Your task to perform on an android device: open app "Upside-Cash back on gas & food" (install if not already installed) Image 0: 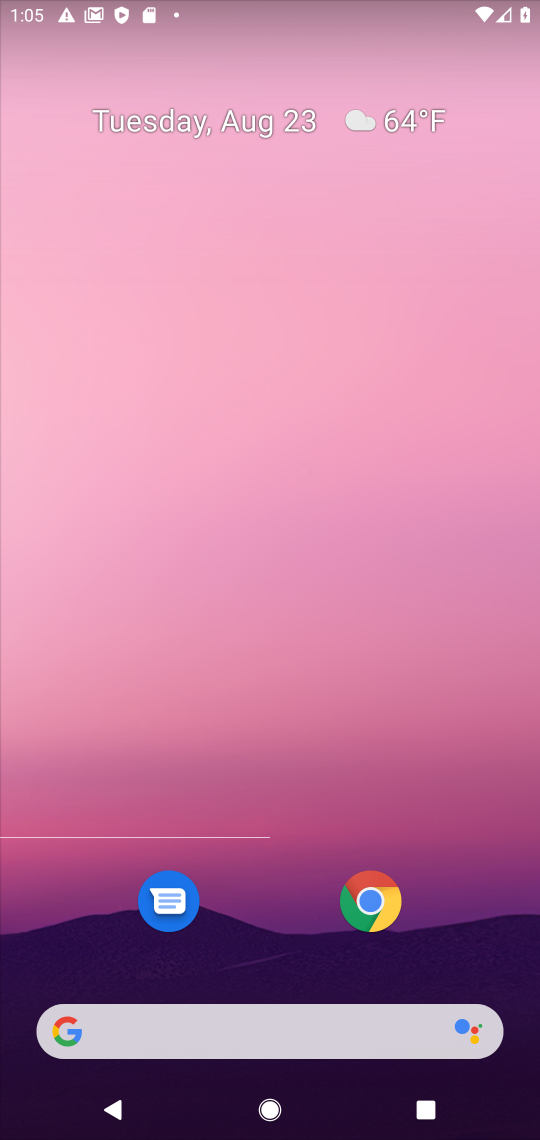
Step 0: press home button
Your task to perform on an android device: open app "Upside-Cash back on gas & food" (install if not already installed) Image 1: 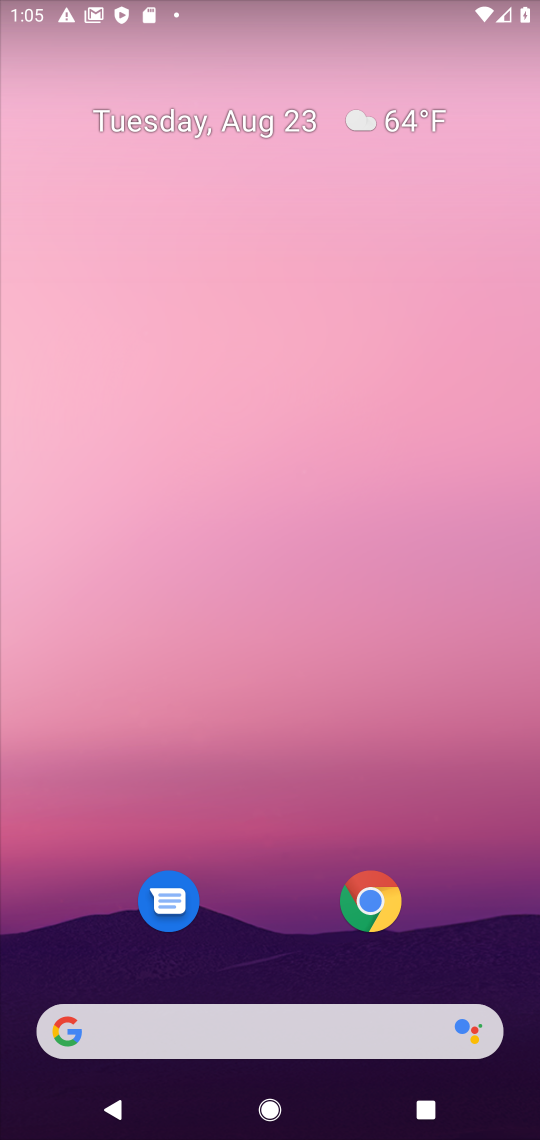
Step 1: drag from (268, 948) to (342, 0)
Your task to perform on an android device: open app "Upside-Cash back on gas & food" (install if not already installed) Image 2: 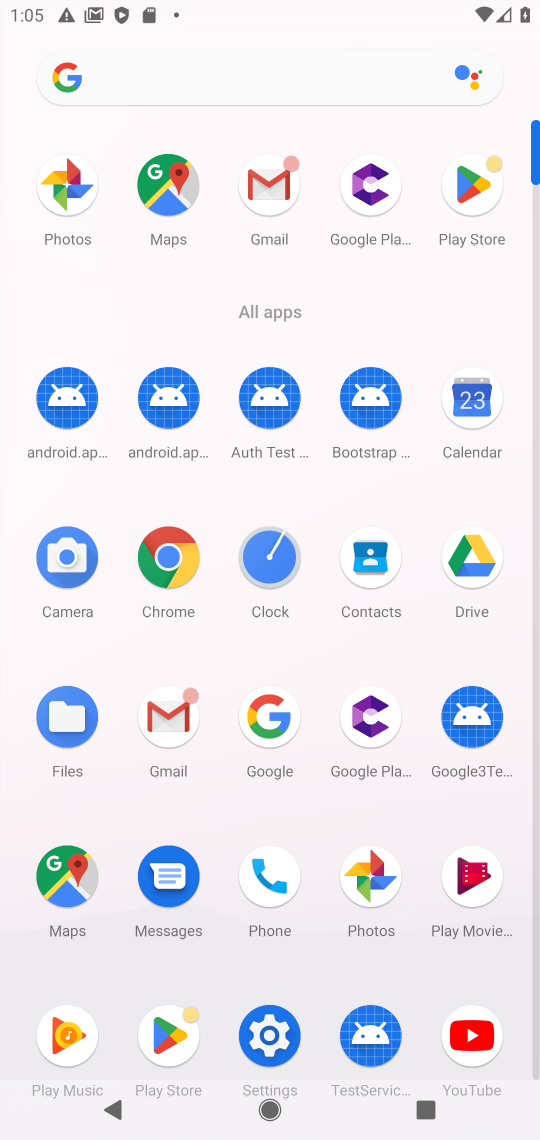
Step 2: click (468, 185)
Your task to perform on an android device: open app "Upside-Cash back on gas & food" (install if not already installed) Image 3: 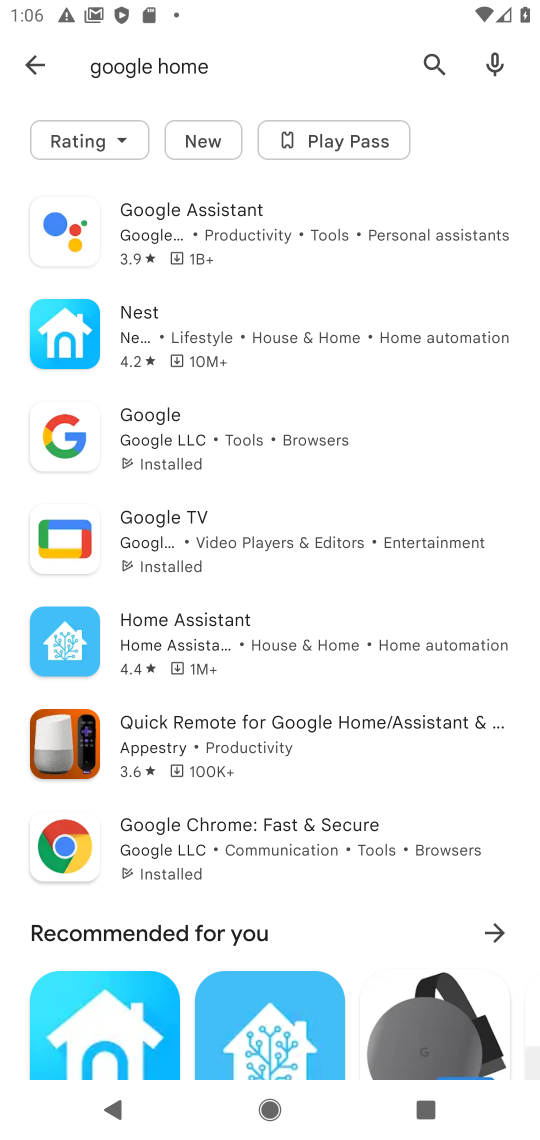
Step 3: click (422, 70)
Your task to perform on an android device: open app "Upside-Cash back on gas & food" (install if not already installed) Image 4: 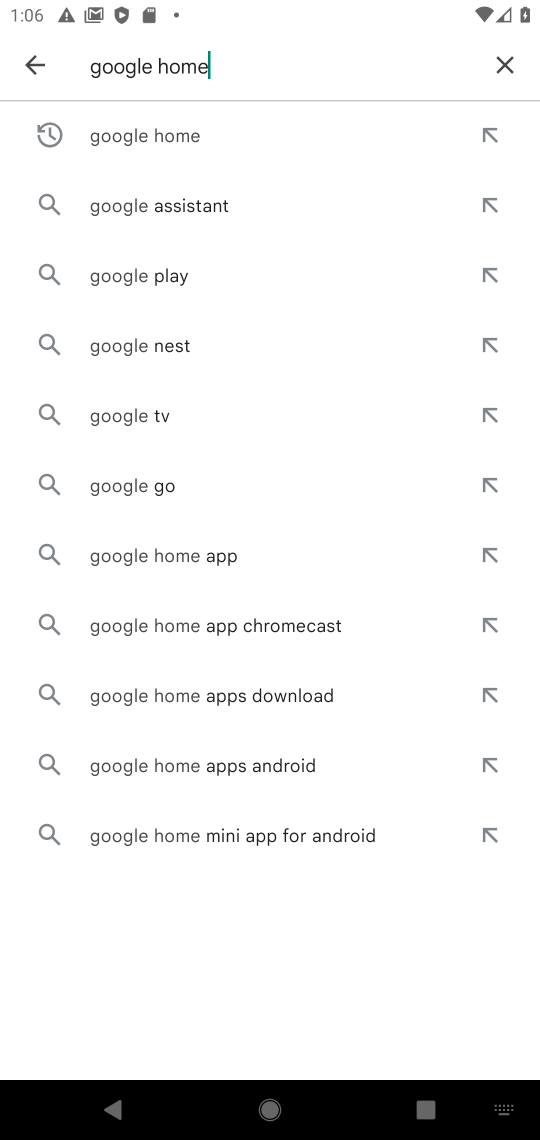
Step 4: click (507, 71)
Your task to perform on an android device: open app "Upside-Cash back on gas & food" (install if not already installed) Image 5: 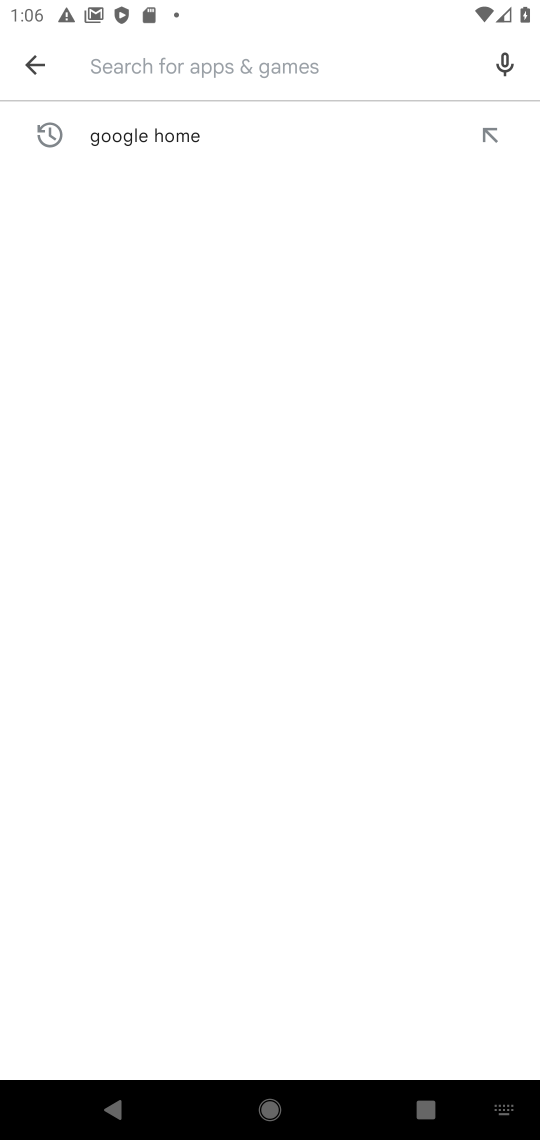
Step 5: type "Upside-Cash back on gas & food"
Your task to perform on an android device: open app "Upside-Cash back on gas & food" (install if not already installed) Image 6: 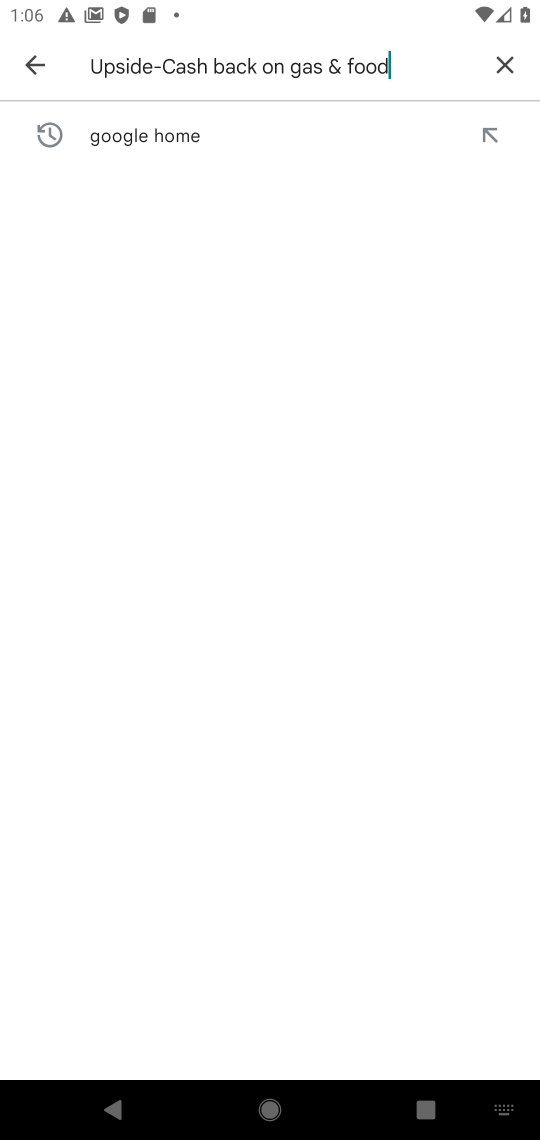
Step 6: type ""
Your task to perform on an android device: open app "Upside-Cash back on gas & food" (install if not already installed) Image 7: 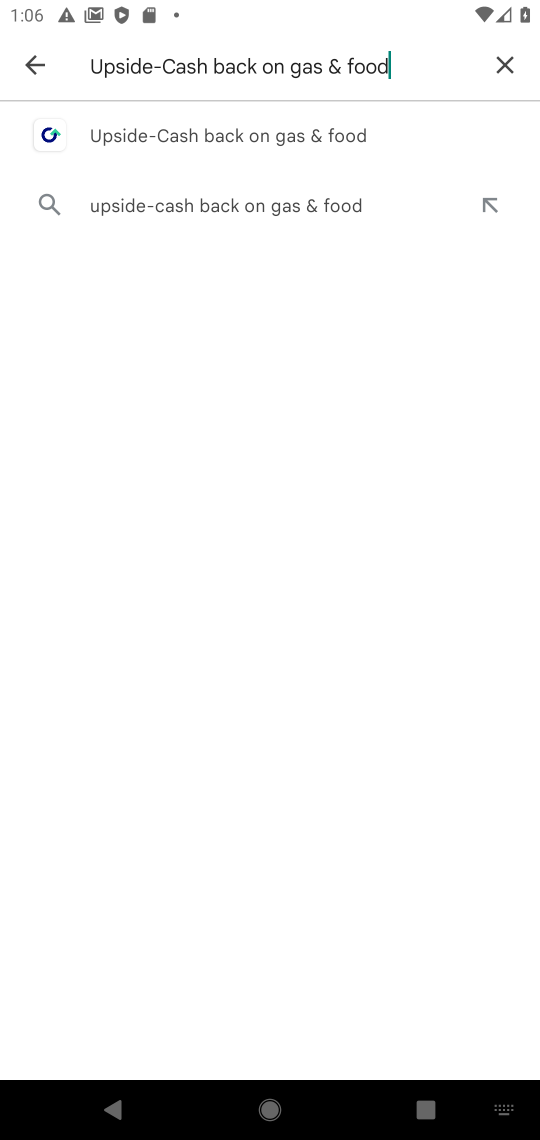
Step 7: click (125, 141)
Your task to perform on an android device: open app "Upside-Cash back on gas & food" (install if not already installed) Image 8: 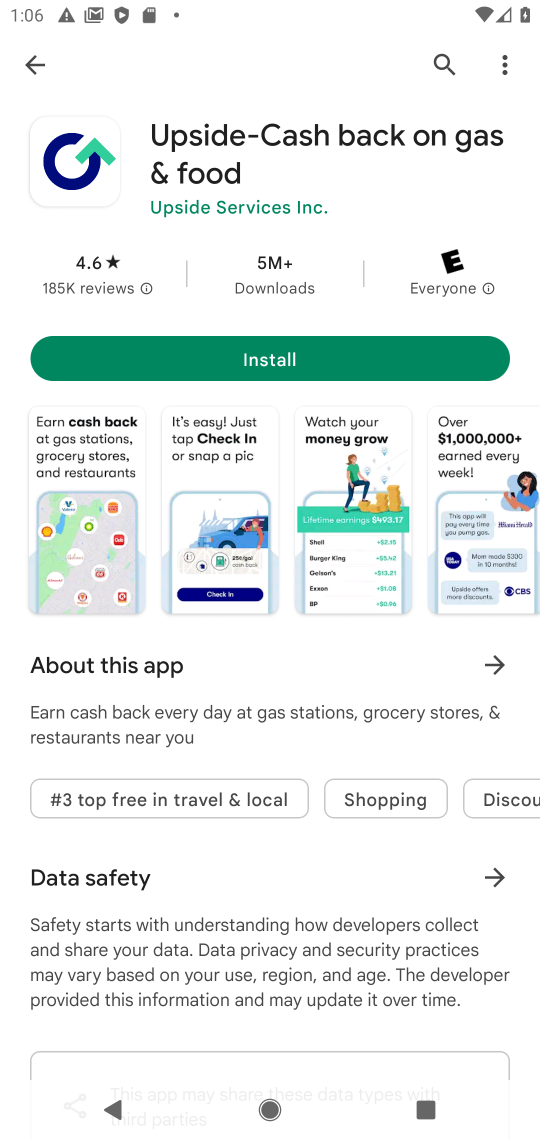
Step 8: click (262, 354)
Your task to perform on an android device: open app "Upside-Cash back on gas & food" (install if not already installed) Image 9: 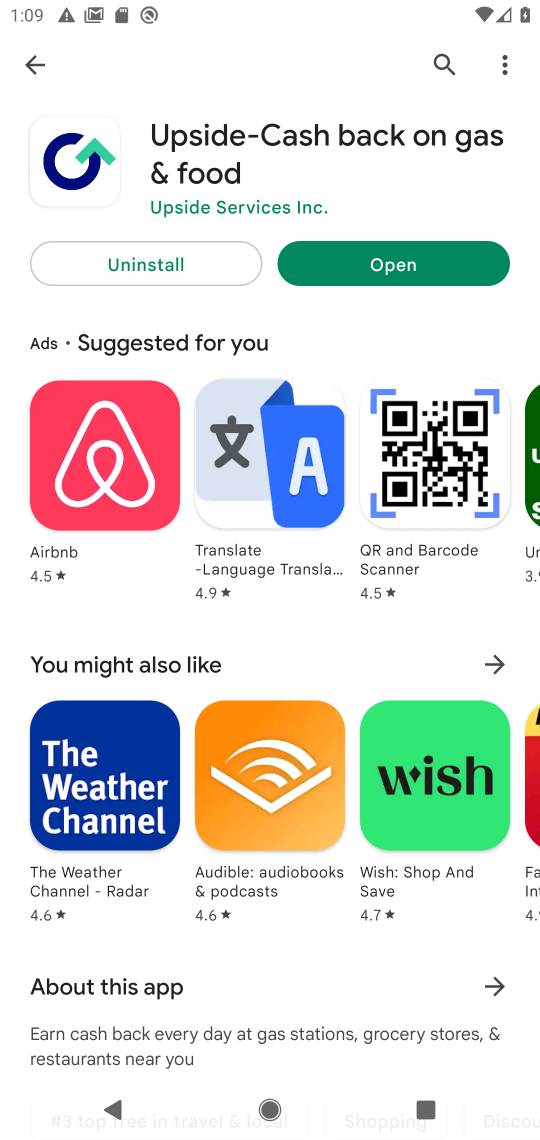
Step 9: click (408, 271)
Your task to perform on an android device: open app "Upside-Cash back on gas & food" (install if not already installed) Image 10: 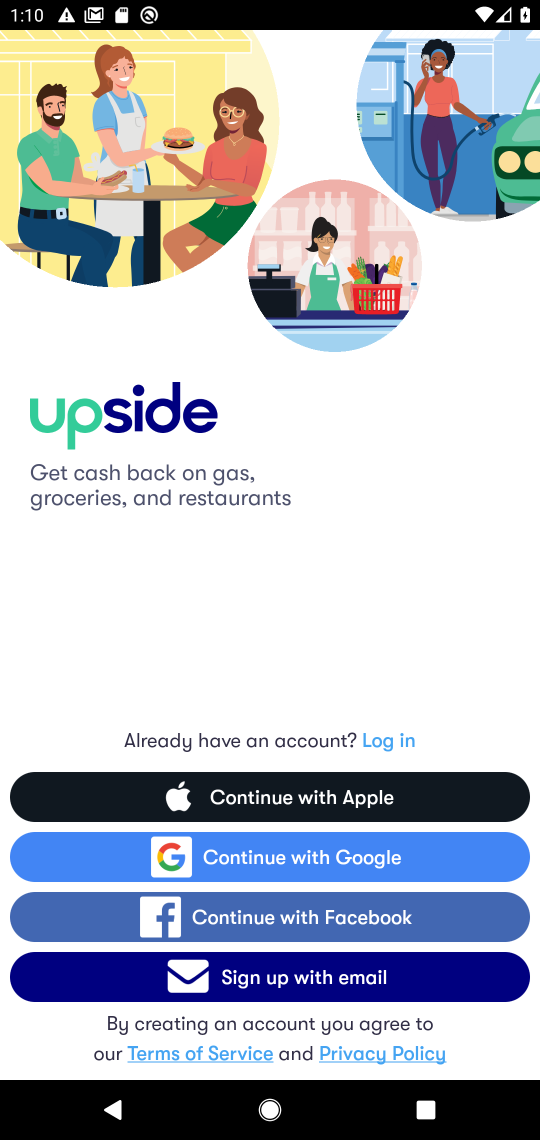
Step 10: click (342, 860)
Your task to perform on an android device: open app "Upside-Cash back on gas & food" (install if not already installed) Image 11: 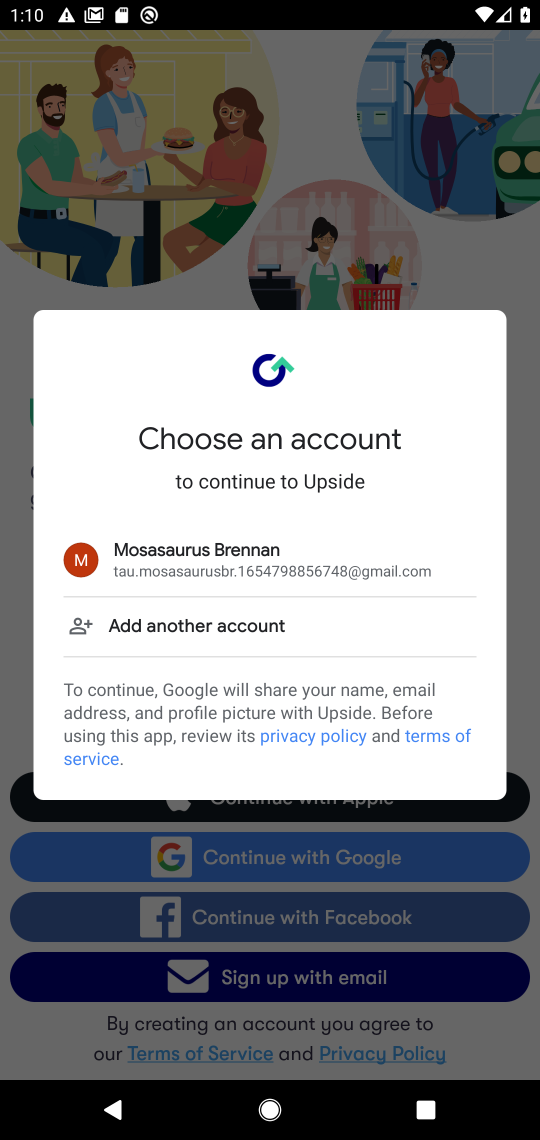
Step 11: click (237, 569)
Your task to perform on an android device: open app "Upside-Cash back on gas & food" (install if not already installed) Image 12: 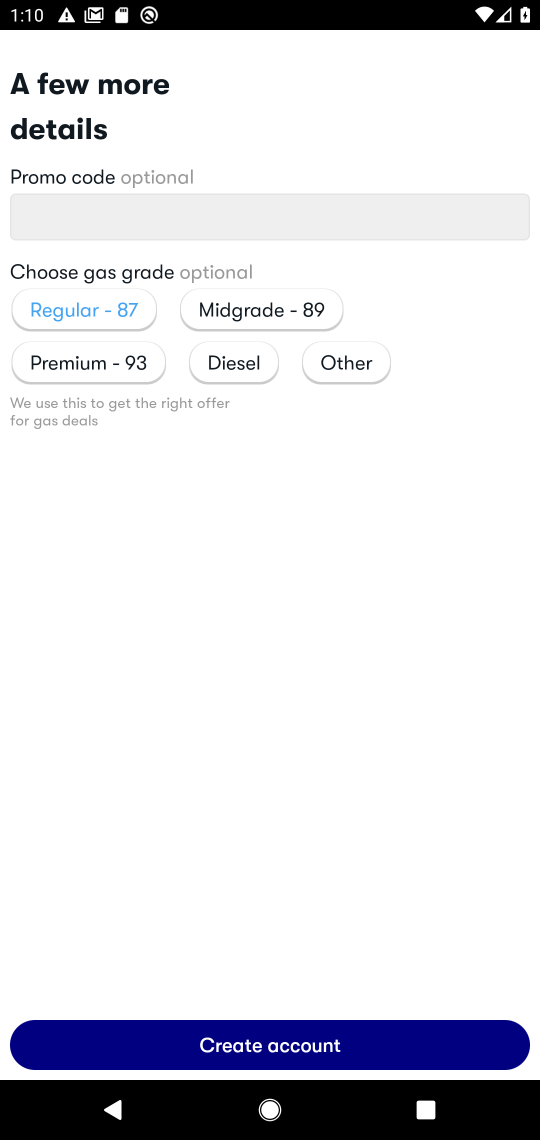
Step 12: click (92, 316)
Your task to perform on an android device: open app "Upside-Cash back on gas & food" (install if not already installed) Image 13: 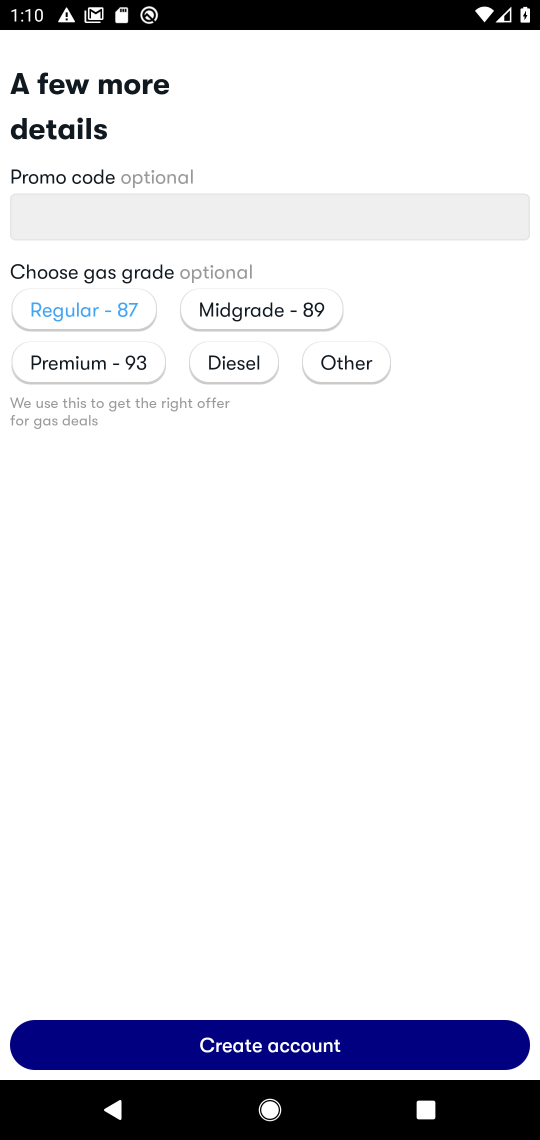
Step 13: task complete